Your task to perform on an android device: turn on wifi Image 0: 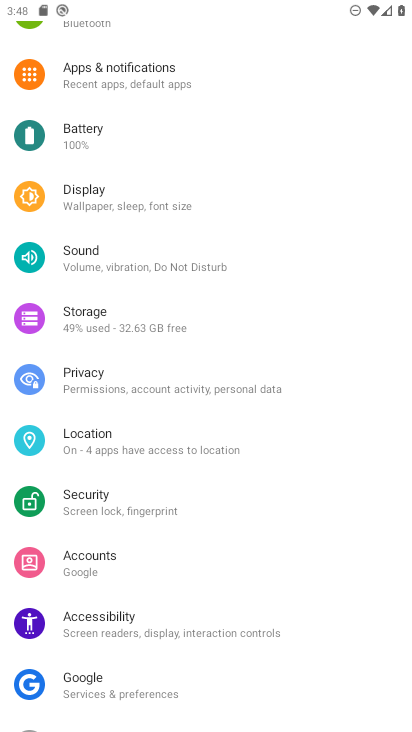
Step 0: drag from (96, 93) to (97, 652)
Your task to perform on an android device: turn on wifi Image 1: 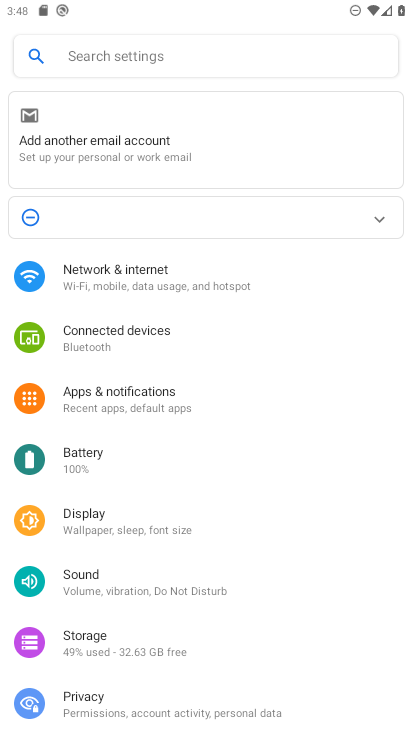
Step 1: click (82, 287)
Your task to perform on an android device: turn on wifi Image 2: 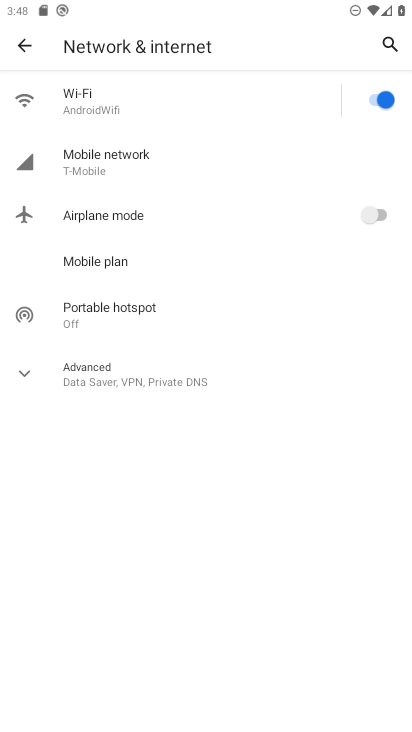
Step 2: task complete